Your task to perform on an android device: turn pop-ups off in chrome Image 0: 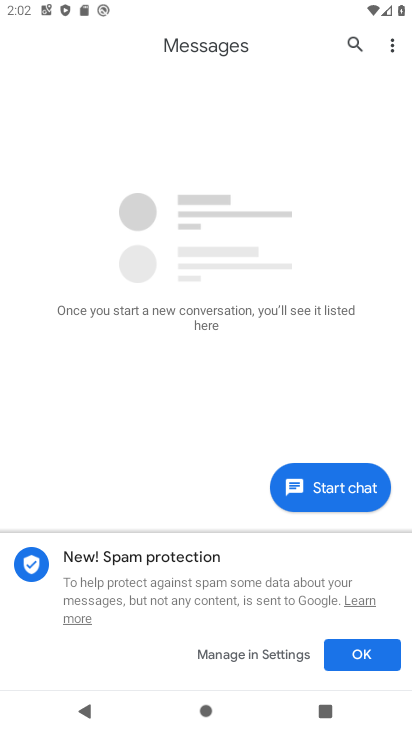
Step 0: press home button
Your task to perform on an android device: turn pop-ups off in chrome Image 1: 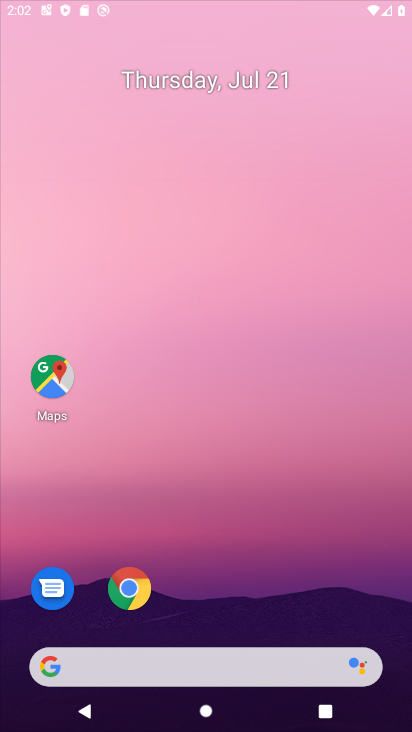
Step 1: drag from (166, 636) to (268, 88)
Your task to perform on an android device: turn pop-ups off in chrome Image 2: 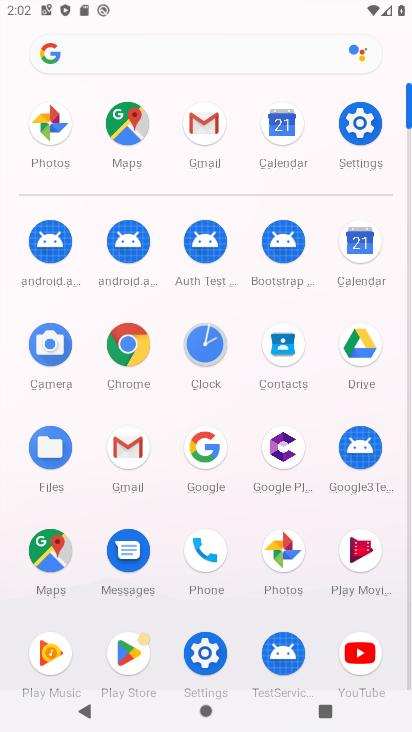
Step 2: click (126, 343)
Your task to perform on an android device: turn pop-ups off in chrome Image 3: 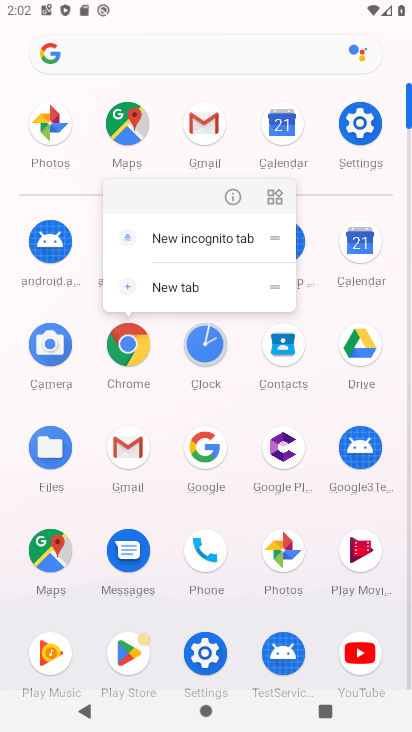
Step 3: click (229, 195)
Your task to perform on an android device: turn pop-ups off in chrome Image 4: 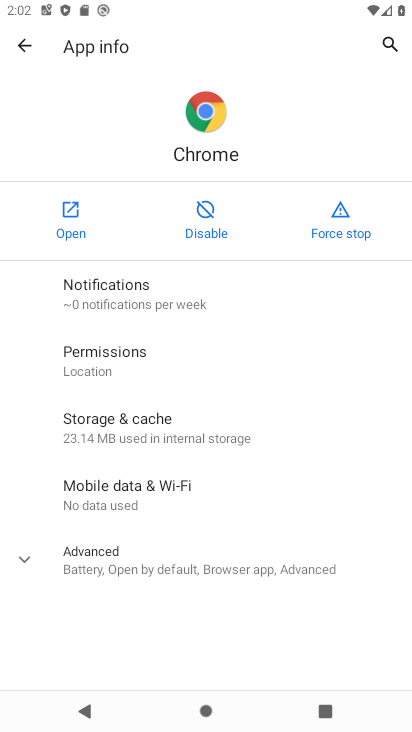
Step 4: click (74, 204)
Your task to perform on an android device: turn pop-ups off in chrome Image 5: 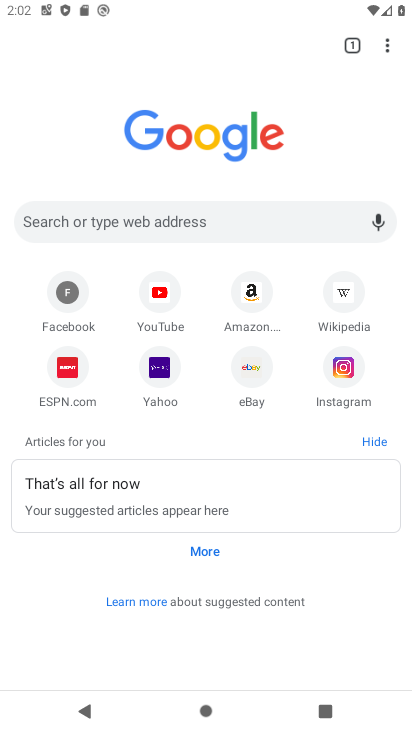
Step 5: drag from (384, 48) to (249, 424)
Your task to perform on an android device: turn pop-ups off in chrome Image 6: 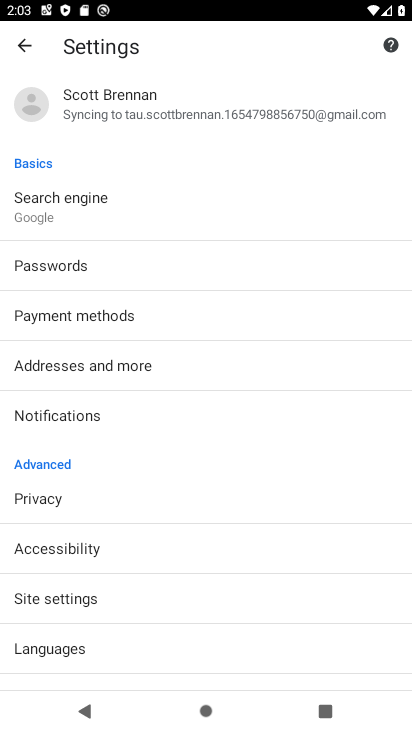
Step 6: click (65, 604)
Your task to perform on an android device: turn pop-ups off in chrome Image 7: 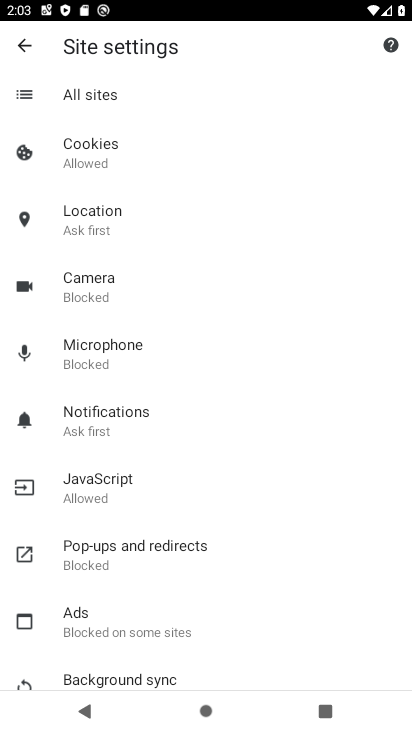
Step 7: click (124, 557)
Your task to perform on an android device: turn pop-ups off in chrome Image 8: 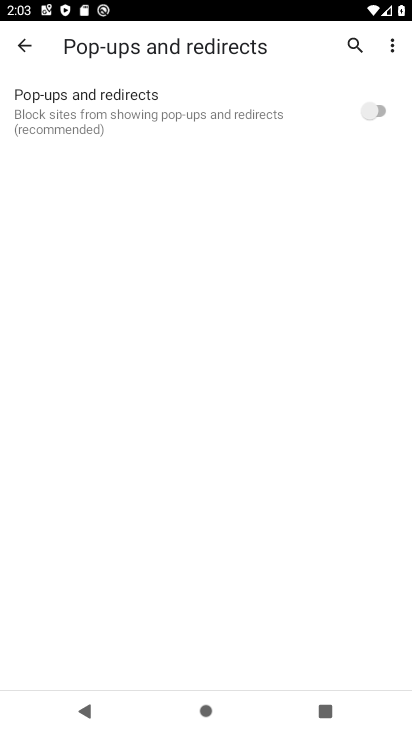
Step 8: task complete